Your task to perform on an android device: change text size in settings app Image 0: 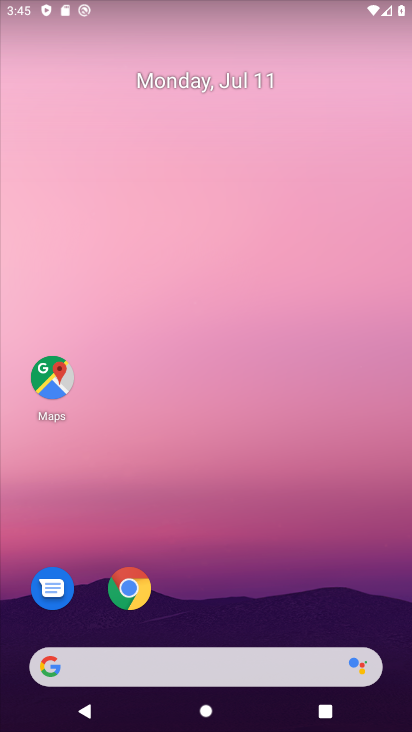
Step 0: drag from (281, 566) to (63, 2)
Your task to perform on an android device: change text size in settings app Image 1: 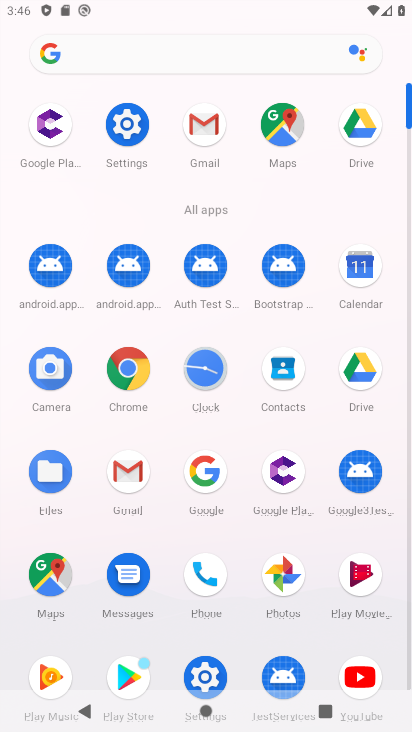
Step 1: click (128, 119)
Your task to perform on an android device: change text size in settings app Image 2: 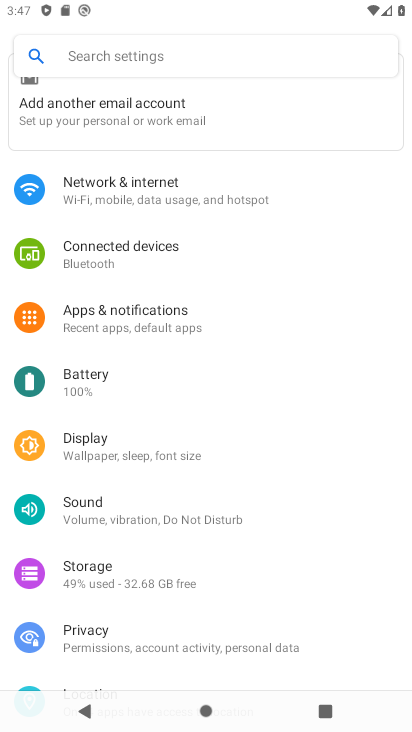
Step 2: click (148, 468)
Your task to perform on an android device: change text size in settings app Image 3: 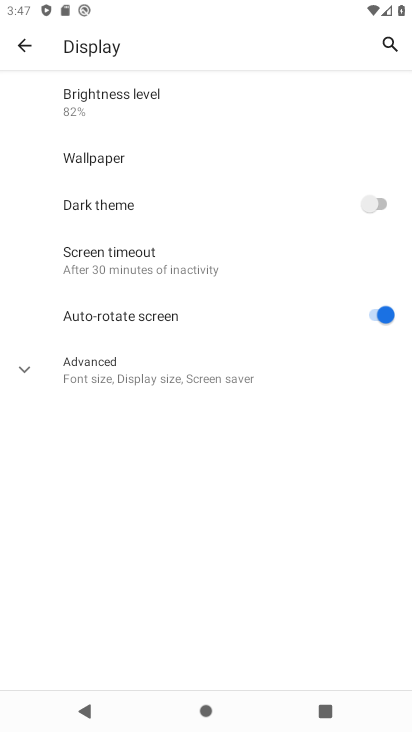
Step 3: click (137, 383)
Your task to perform on an android device: change text size in settings app Image 4: 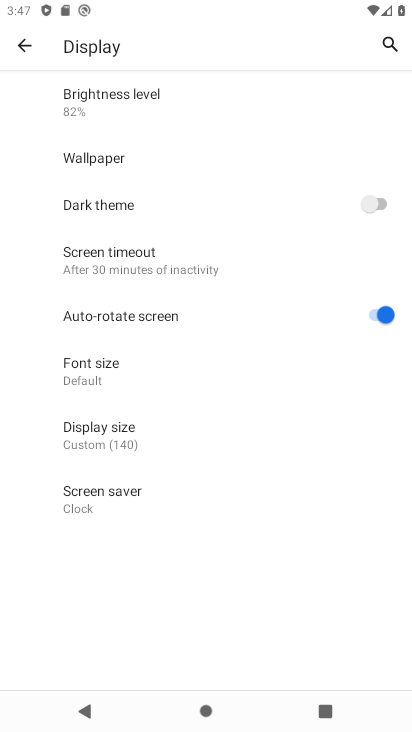
Step 4: click (108, 373)
Your task to perform on an android device: change text size in settings app Image 5: 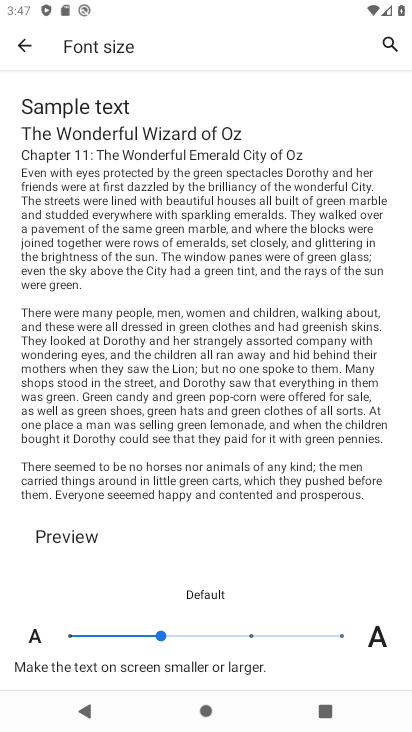
Step 5: click (191, 646)
Your task to perform on an android device: change text size in settings app Image 6: 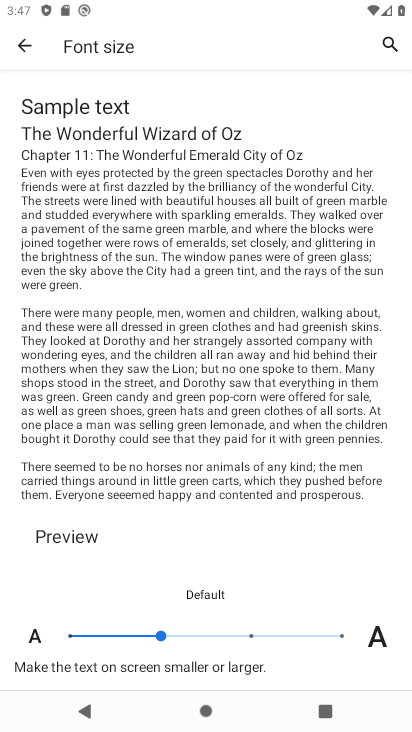
Step 6: task complete